Your task to perform on an android device: Go to Yahoo.com Image 0: 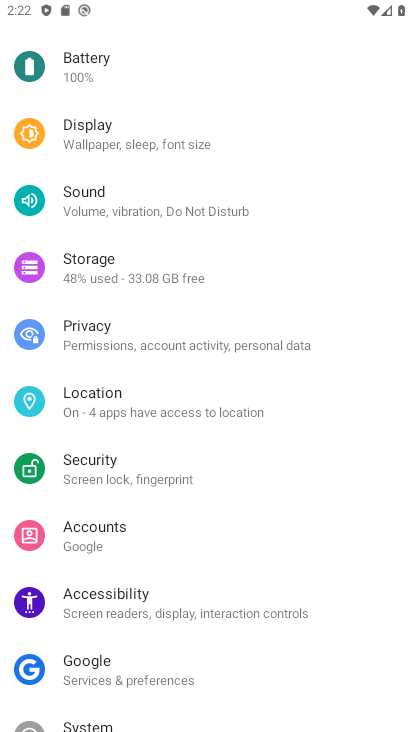
Step 0: press home button
Your task to perform on an android device: Go to Yahoo.com Image 1: 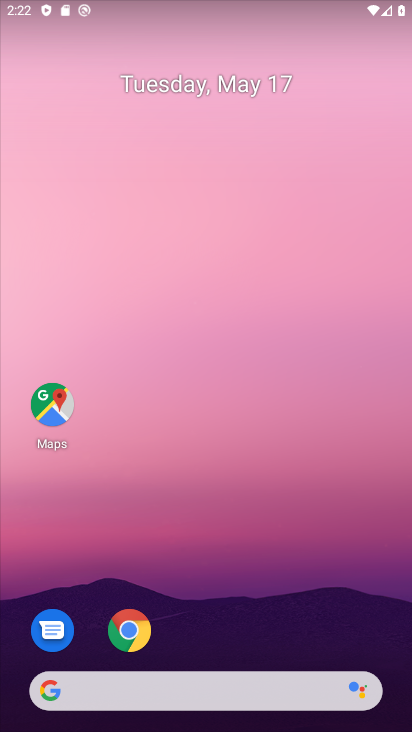
Step 1: click (121, 632)
Your task to perform on an android device: Go to Yahoo.com Image 2: 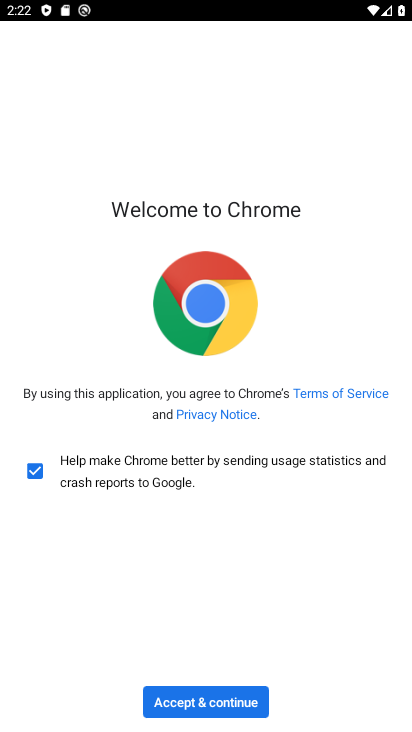
Step 2: click (192, 706)
Your task to perform on an android device: Go to Yahoo.com Image 3: 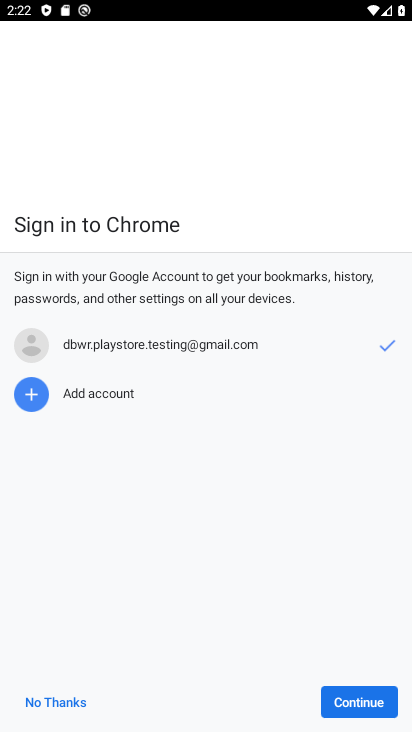
Step 3: click (365, 711)
Your task to perform on an android device: Go to Yahoo.com Image 4: 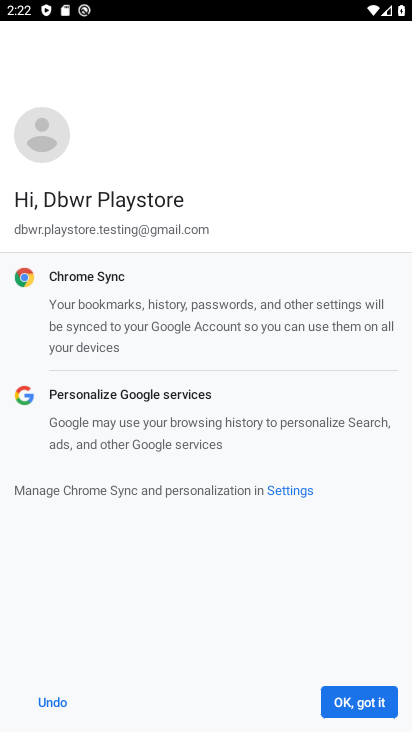
Step 4: click (365, 711)
Your task to perform on an android device: Go to Yahoo.com Image 5: 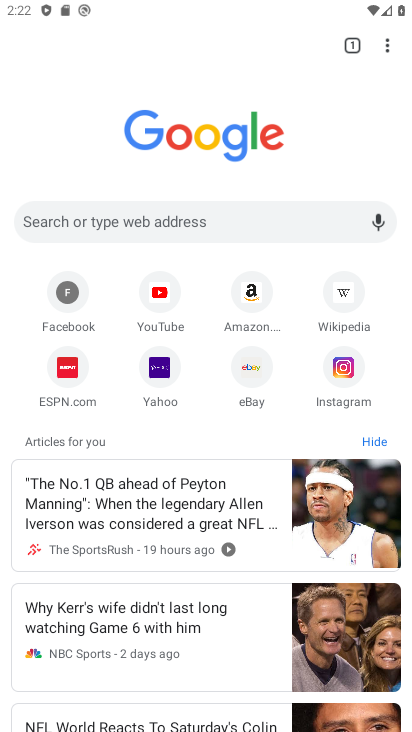
Step 5: click (158, 367)
Your task to perform on an android device: Go to Yahoo.com Image 6: 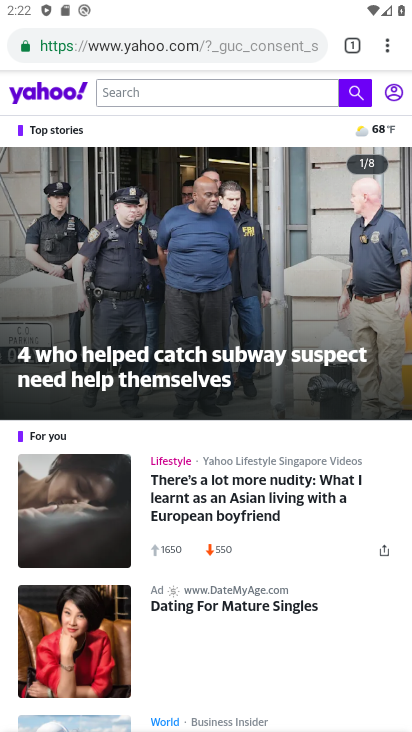
Step 6: task complete